Your task to perform on an android device: Go to network settings Image 0: 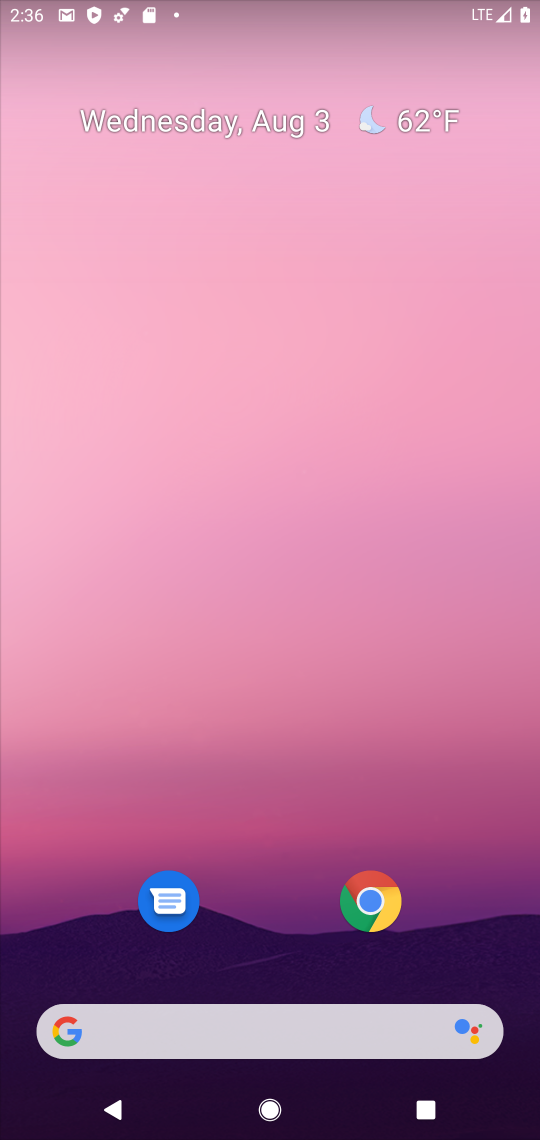
Step 0: drag from (186, 903) to (207, 317)
Your task to perform on an android device: Go to network settings Image 1: 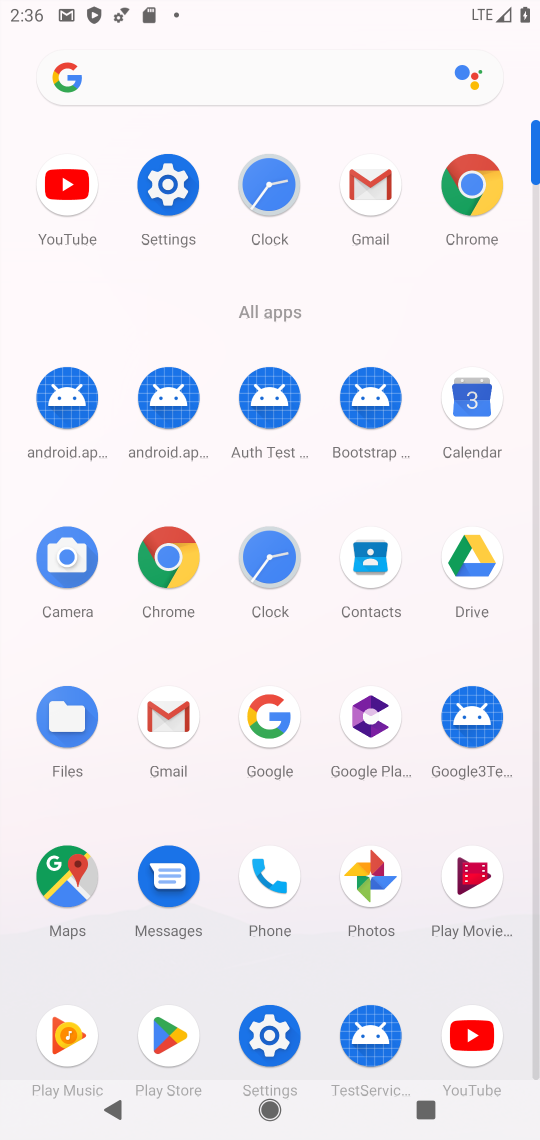
Step 1: click (155, 166)
Your task to perform on an android device: Go to network settings Image 2: 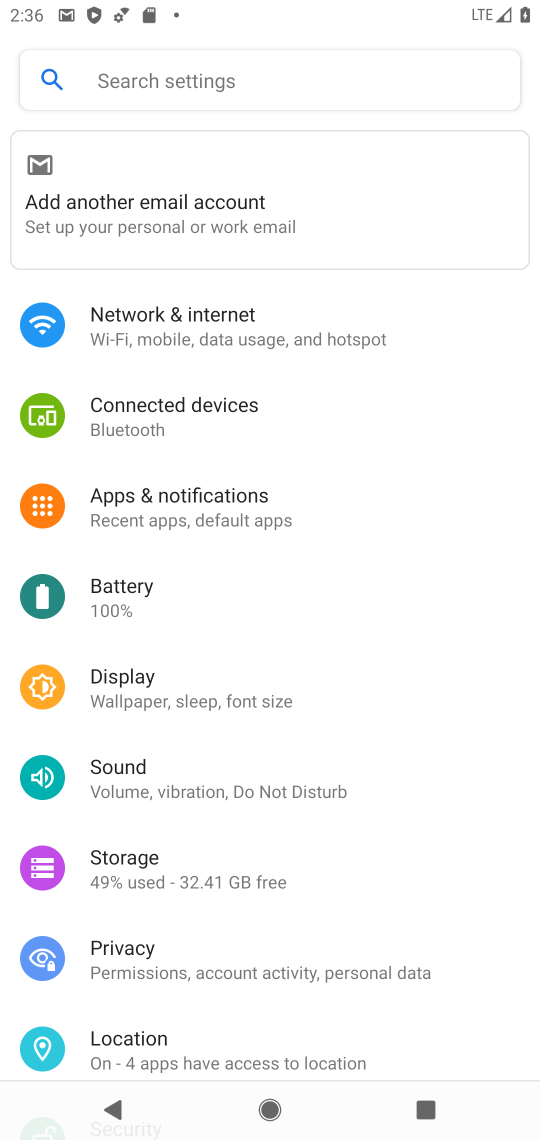
Step 2: click (210, 341)
Your task to perform on an android device: Go to network settings Image 3: 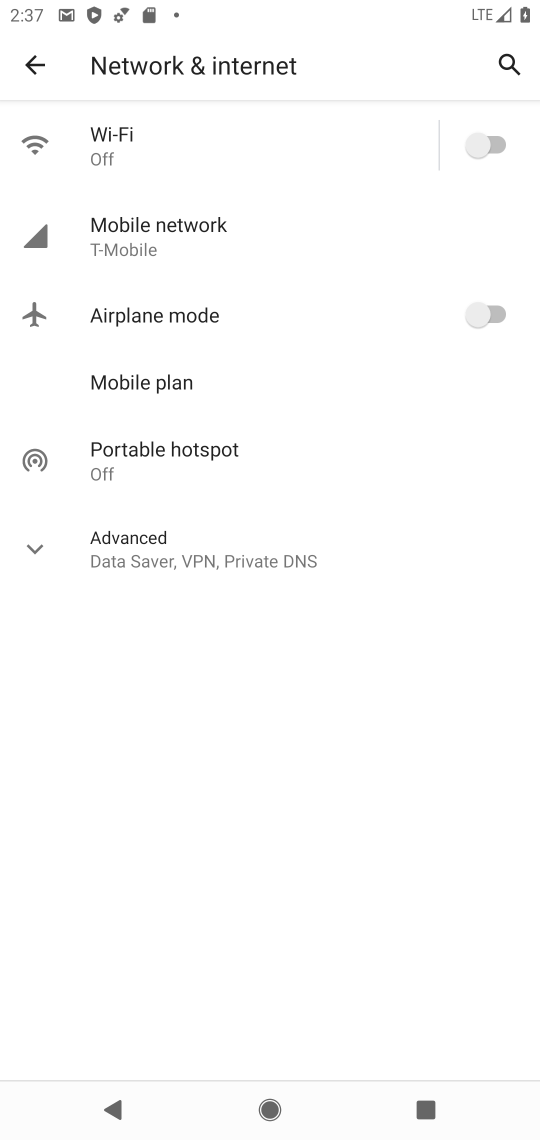
Step 3: task complete